Your task to perform on an android device: change the clock display to show seconds Image 0: 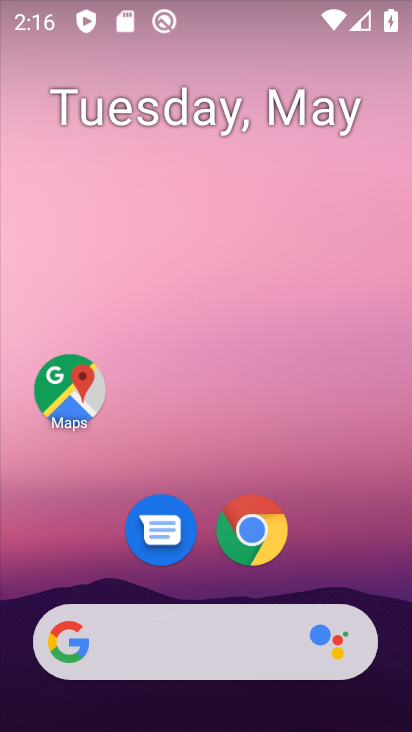
Step 0: drag from (208, 580) to (206, 92)
Your task to perform on an android device: change the clock display to show seconds Image 1: 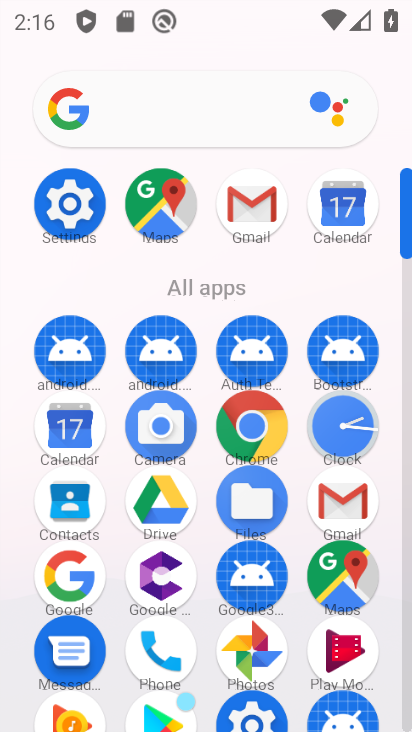
Step 1: click (312, 408)
Your task to perform on an android device: change the clock display to show seconds Image 2: 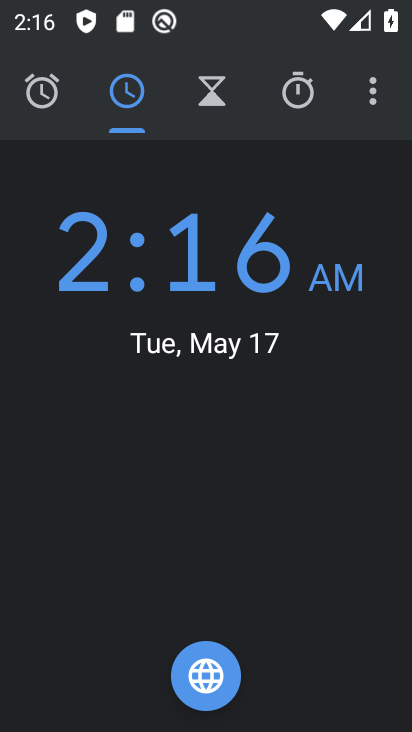
Step 2: click (382, 80)
Your task to perform on an android device: change the clock display to show seconds Image 3: 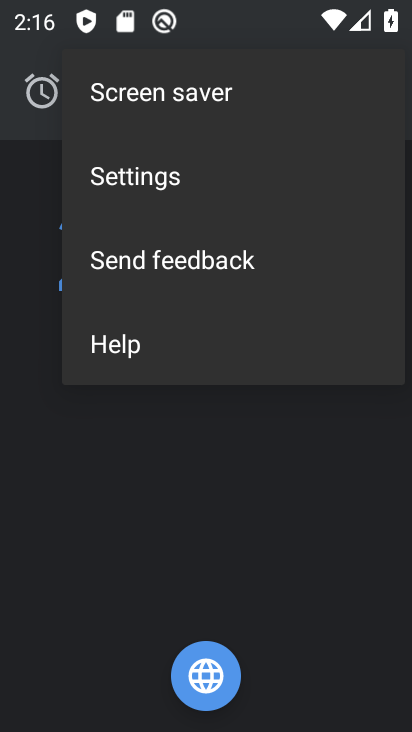
Step 3: click (202, 175)
Your task to perform on an android device: change the clock display to show seconds Image 4: 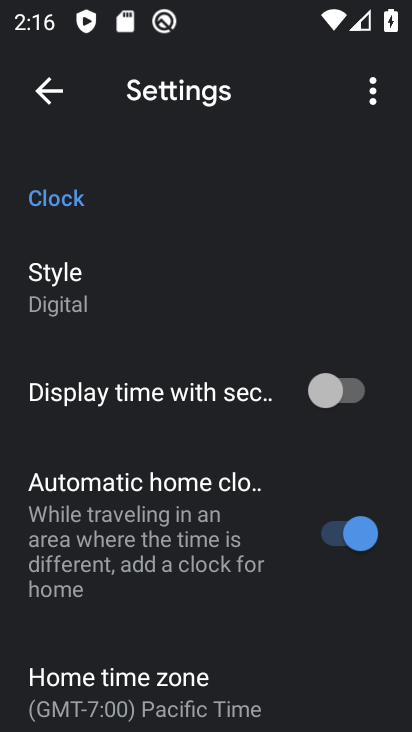
Step 4: click (364, 398)
Your task to perform on an android device: change the clock display to show seconds Image 5: 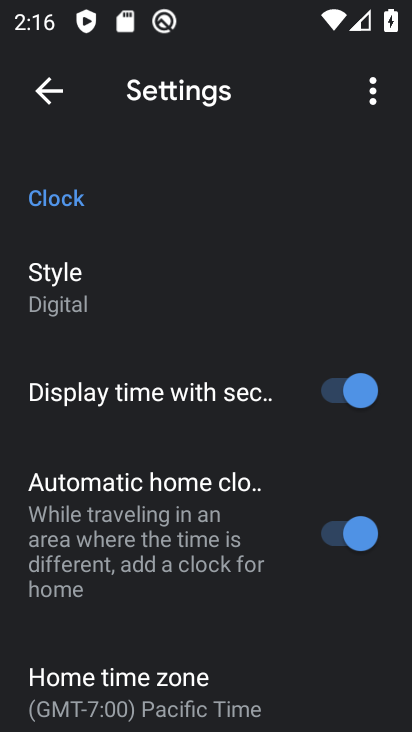
Step 5: task complete